Your task to perform on an android device: turn smart compose on in the gmail app Image 0: 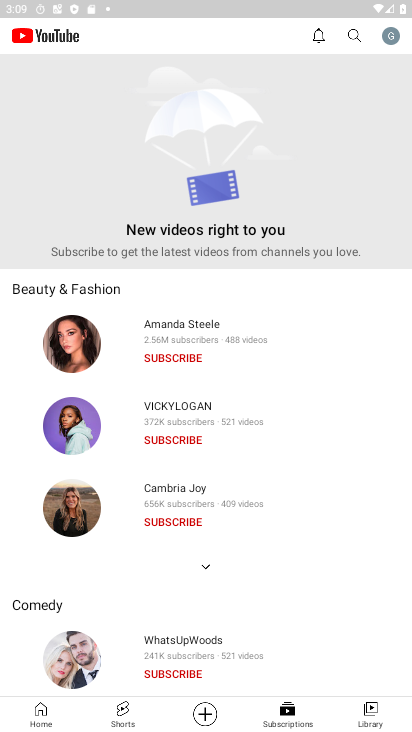
Step 0: press home button
Your task to perform on an android device: turn smart compose on in the gmail app Image 1: 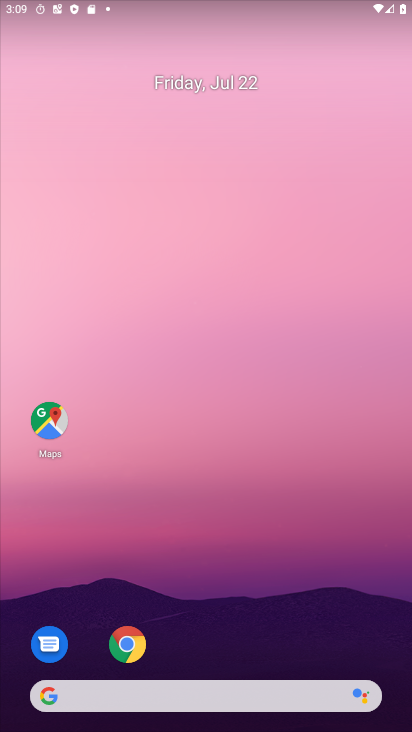
Step 1: drag from (250, 502) to (253, 117)
Your task to perform on an android device: turn smart compose on in the gmail app Image 2: 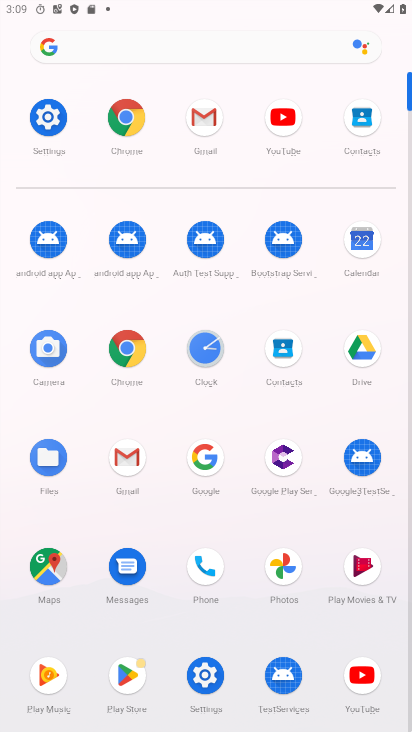
Step 2: click (198, 122)
Your task to perform on an android device: turn smart compose on in the gmail app Image 3: 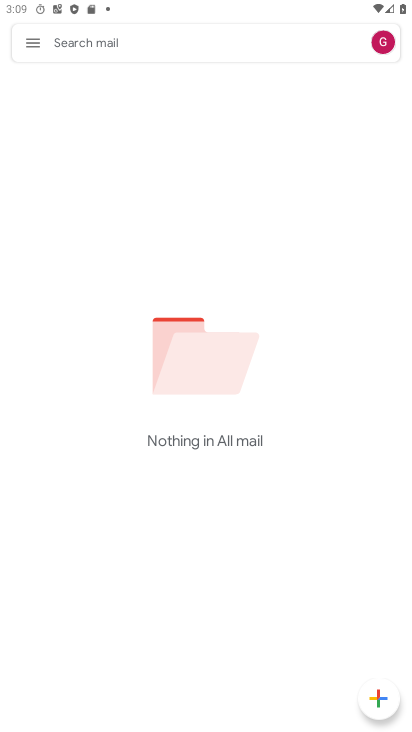
Step 3: click (29, 37)
Your task to perform on an android device: turn smart compose on in the gmail app Image 4: 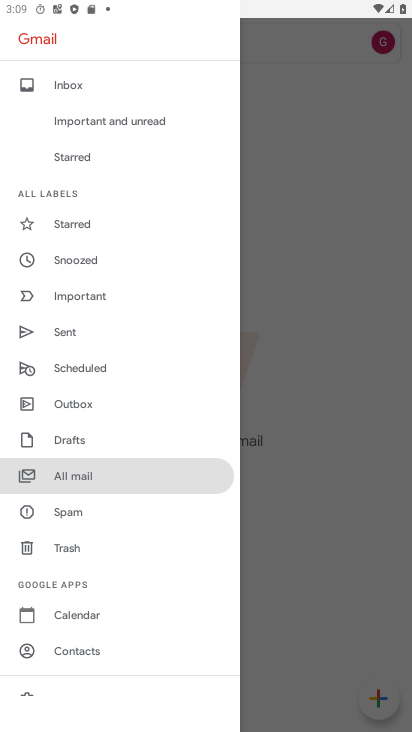
Step 4: drag from (124, 589) to (122, 155)
Your task to perform on an android device: turn smart compose on in the gmail app Image 5: 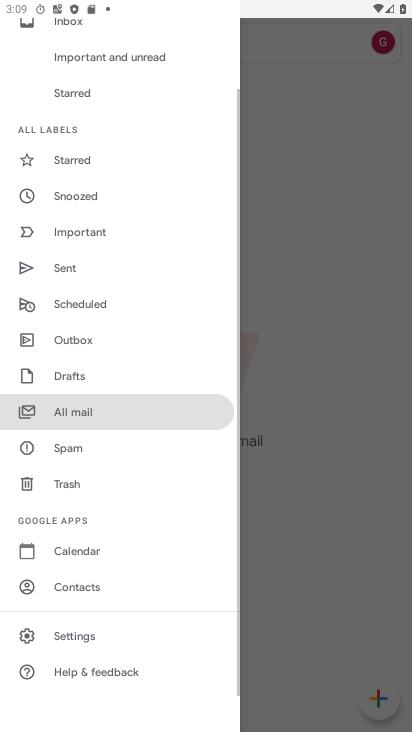
Step 5: click (74, 638)
Your task to perform on an android device: turn smart compose on in the gmail app Image 6: 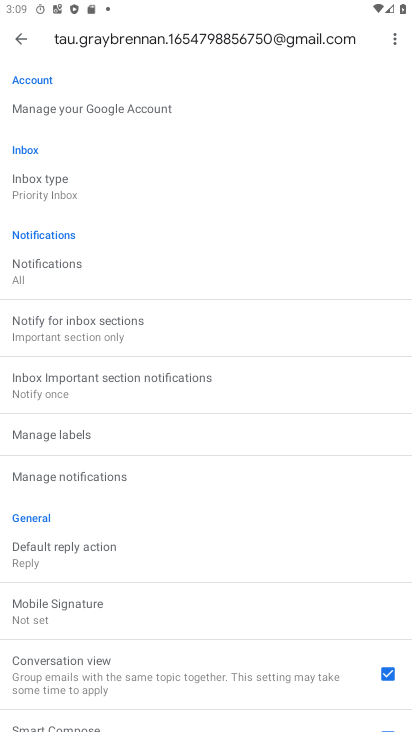
Step 6: task complete